Your task to perform on an android device: Open Google Chrome and click the shortcut for Amazon.com Image 0: 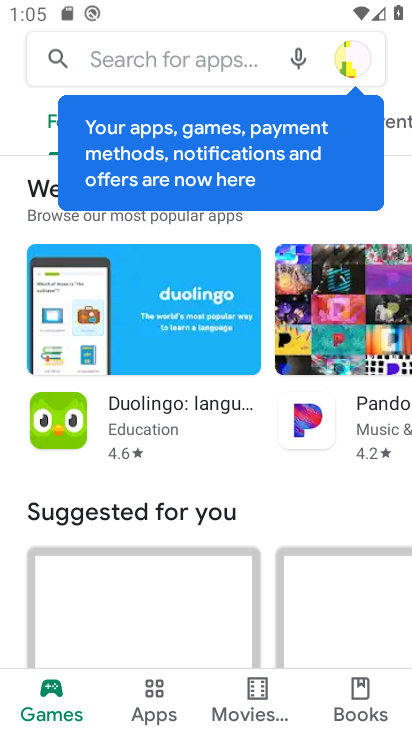
Step 0: press home button
Your task to perform on an android device: Open Google Chrome and click the shortcut for Amazon.com Image 1: 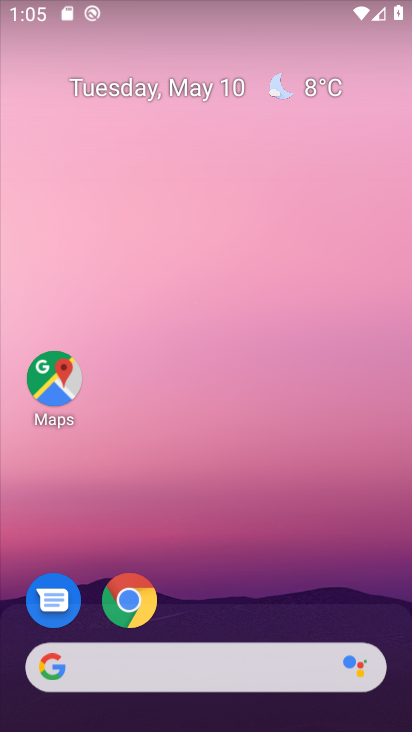
Step 1: click (115, 598)
Your task to perform on an android device: Open Google Chrome and click the shortcut for Amazon.com Image 2: 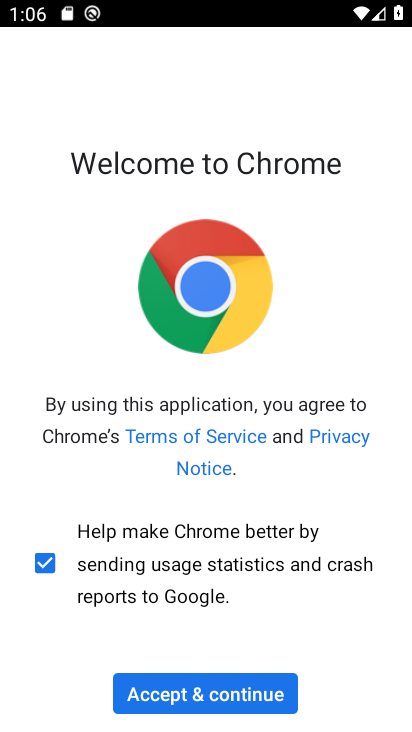
Step 2: click (230, 689)
Your task to perform on an android device: Open Google Chrome and click the shortcut for Amazon.com Image 3: 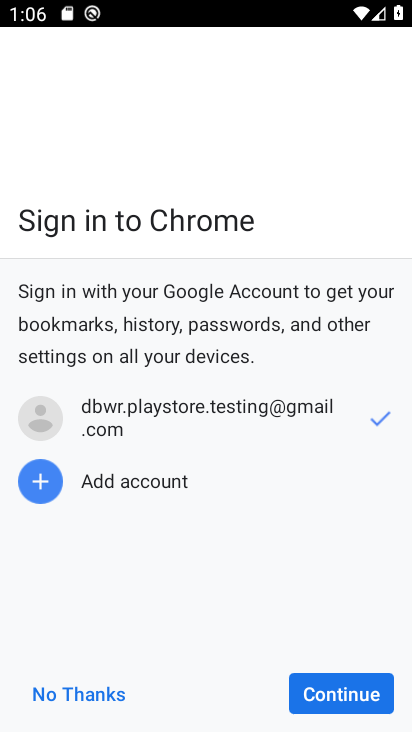
Step 3: click (365, 695)
Your task to perform on an android device: Open Google Chrome and click the shortcut for Amazon.com Image 4: 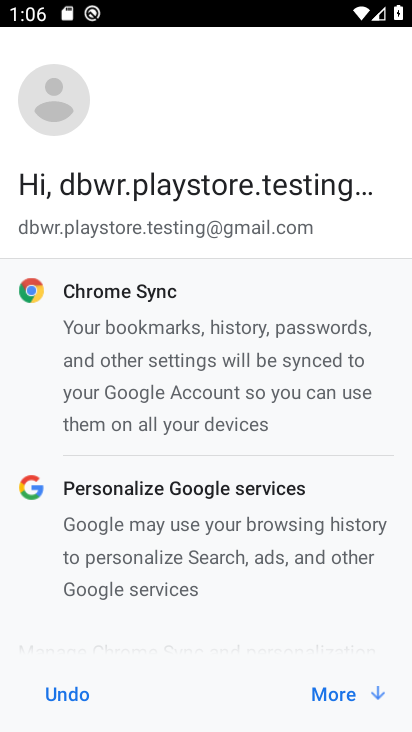
Step 4: click (357, 693)
Your task to perform on an android device: Open Google Chrome and click the shortcut for Amazon.com Image 5: 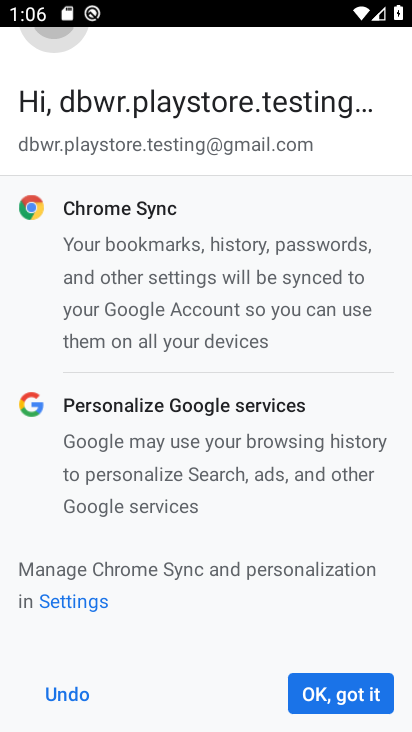
Step 5: click (357, 692)
Your task to perform on an android device: Open Google Chrome and click the shortcut for Amazon.com Image 6: 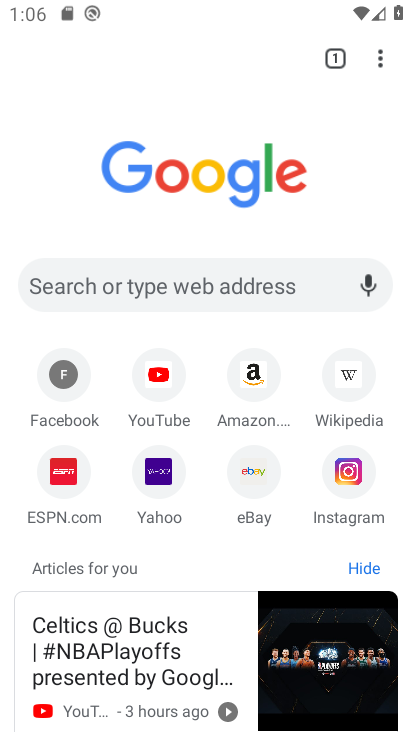
Step 6: click (246, 388)
Your task to perform on an android device: Open Google Chrome and click the shortcut for Amazon.com Image 7: 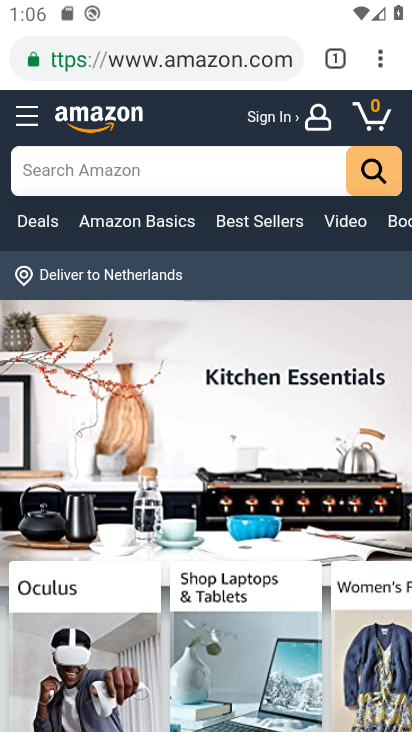
Step 7: task complete